Your task to perform on an android device: Open the map Image 0: 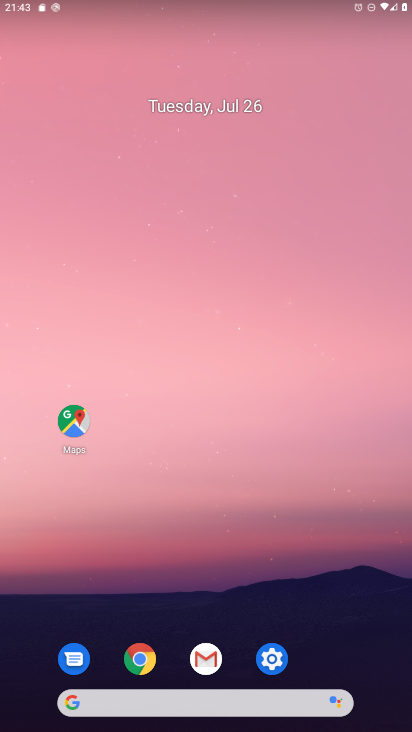
Step 0: click (64, 416)
Your task to perform on an android device: Open the map Image 1: 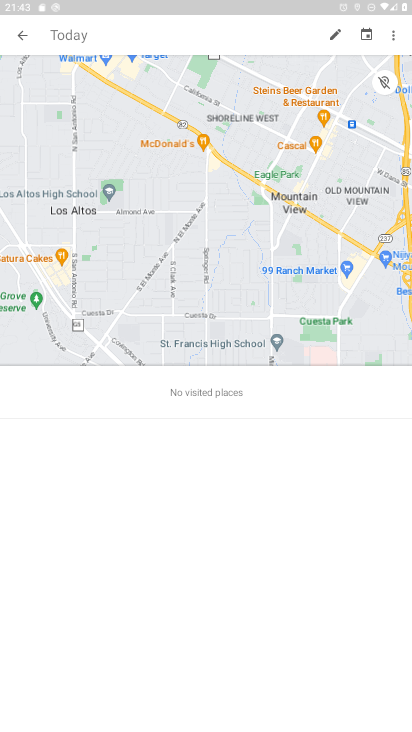
Step 1: click (23, 33)
Your task to perform on an android device: Open the map Image 2: 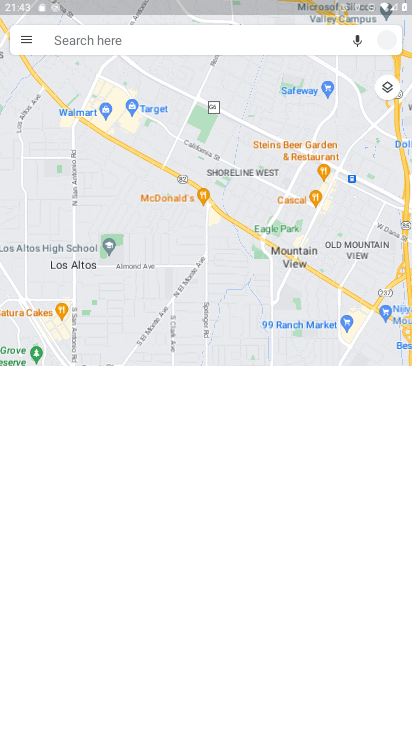
Step 2: click (23, 34)
Your task to perform on an android device: Open the map Image 3: 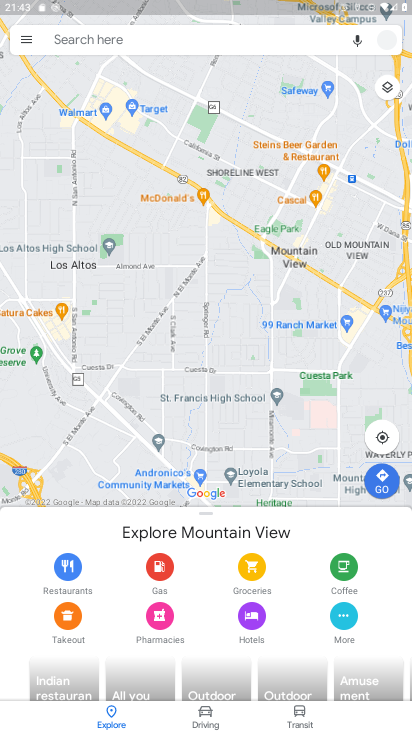
Step 3: click (382, 427)
Your task to perform on an android device: Open the map Image 4: 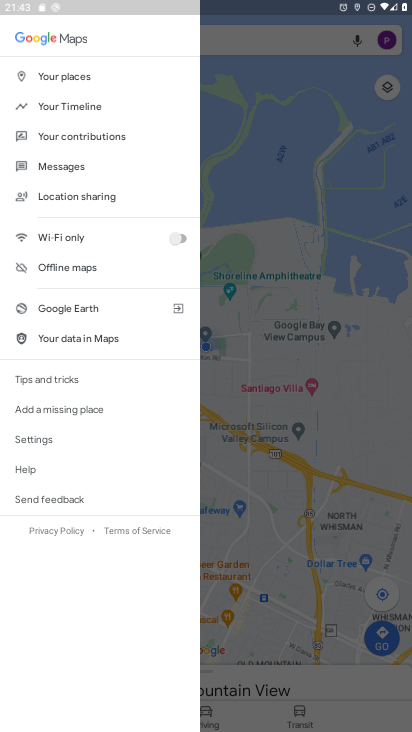
Step 4: click (363, 208)
Your task to perform on an android device: Open the map Image 5: 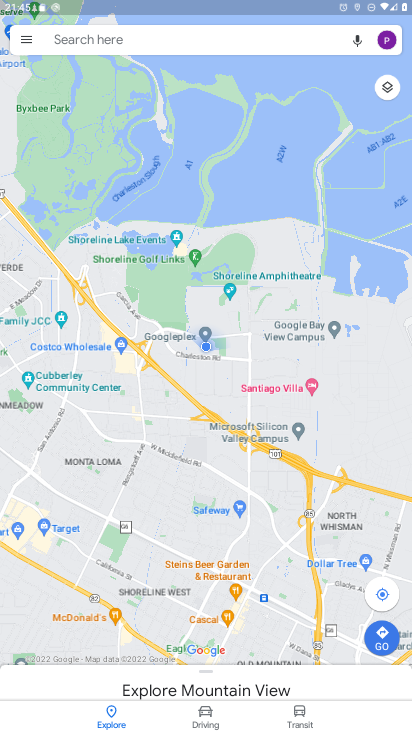
Step 5: task complete